Your task to perform on an android device: toggle notification dots Image 0: 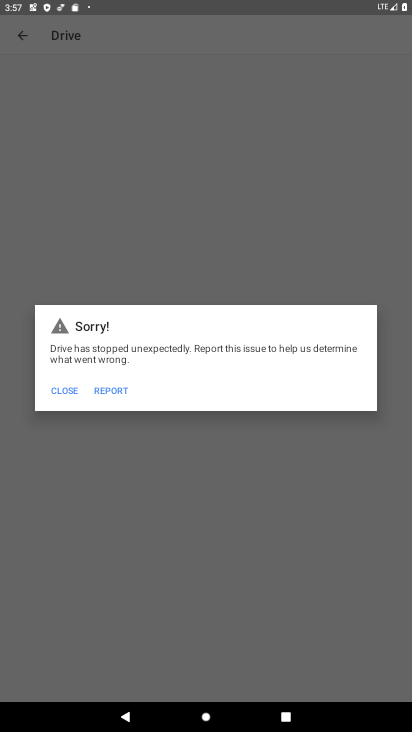
Step 0: click (236, 634)
Your task to perform on an android device: toggle notification dots Image 1: 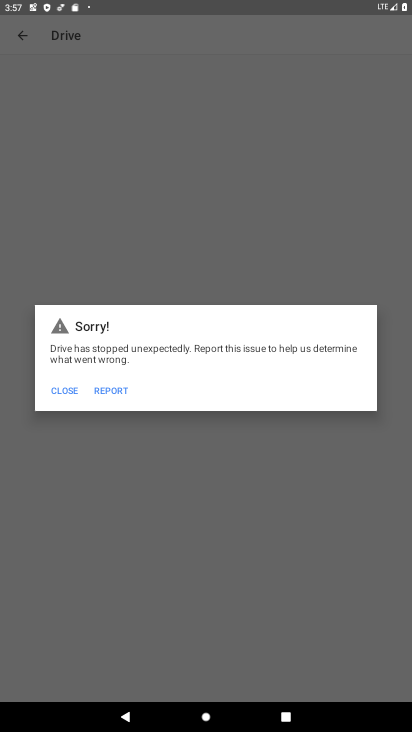
Step 1: press home button
Your task to perform on an android device: toggle notification dots Image 2: 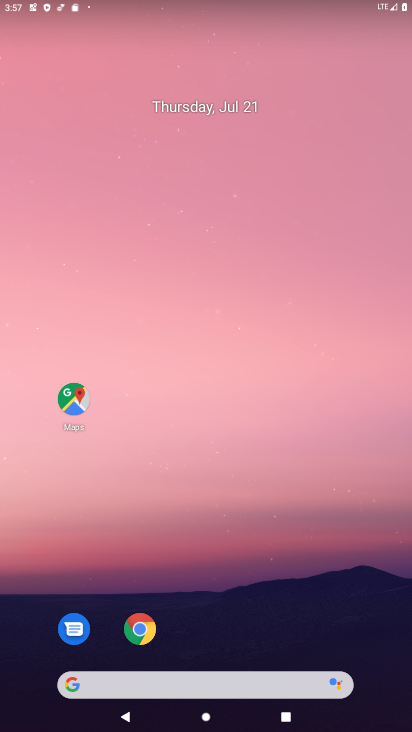
Step 2: drag from (348, 620) to (250, 0)
Your task to perform on an android device: toggle notification dots Image 3: 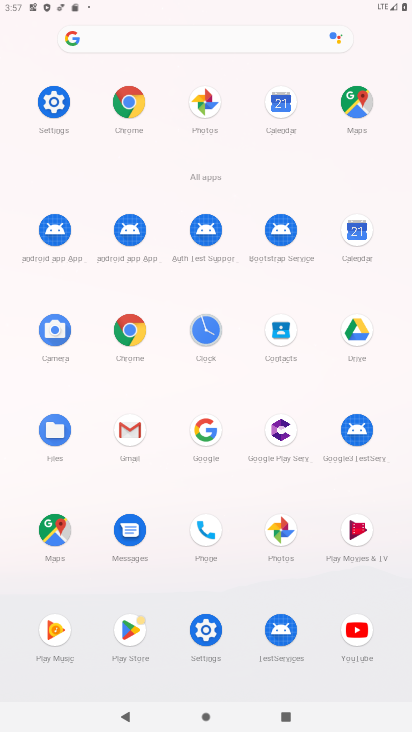
Step 3: click (49, 111)
Your task to perform on an android device: toggle notification dots Image 4: 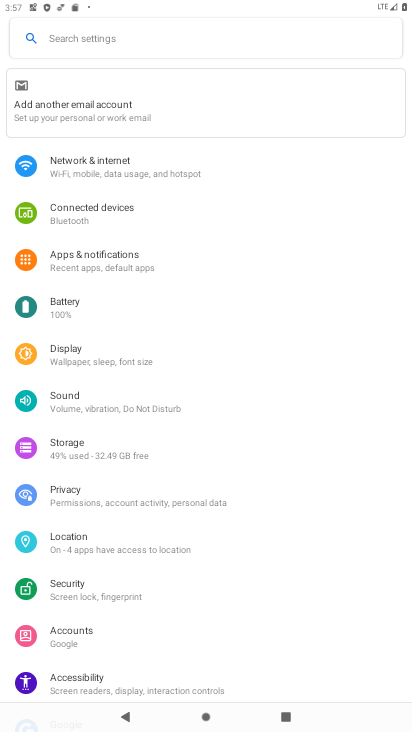
Step 4: click (131, 267)
Your task to perform on an android device: toggle notification dots Image 5: 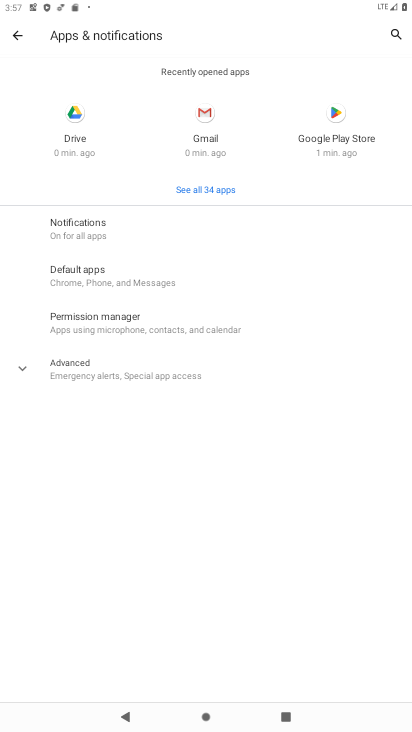
Step 5: click (122, 229)
Your task to perform on an android device: toggle notification dots Image 6: 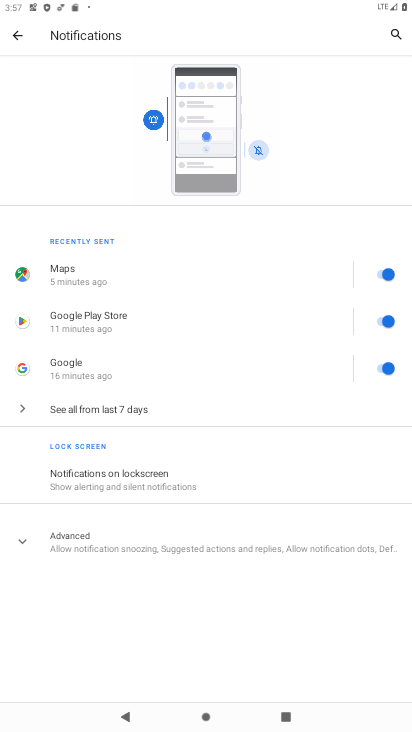
Step 6: click (225, 541)
Your task to perform on an android device: toggle notification dots Image 7: 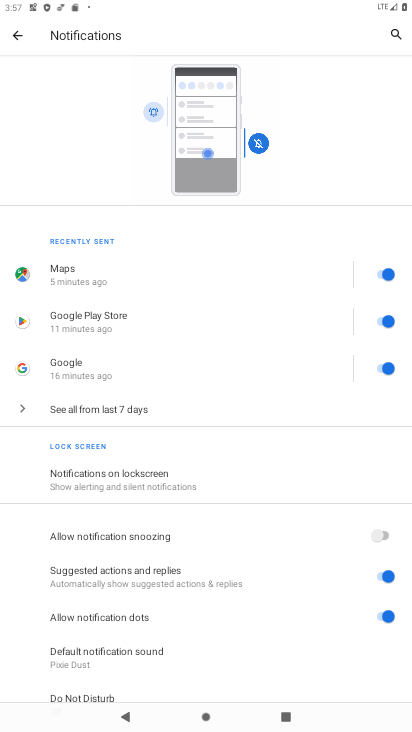
Step 7: click (381, 607)
Your task to perform on an android device: toggle notification dots Image 8: 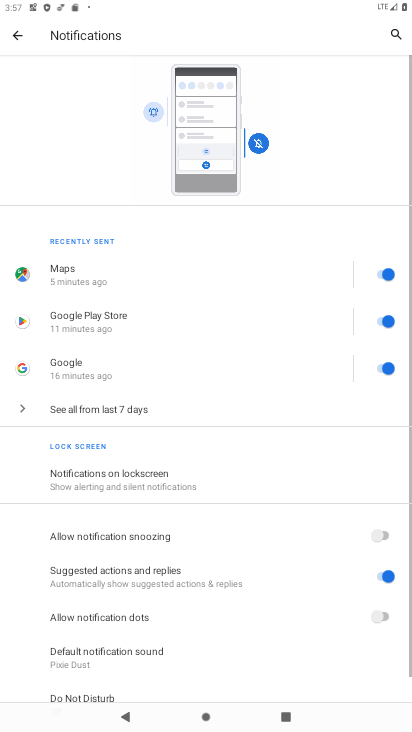
Step 8: task complete